Your task to perform on an android device: turn off location history Image 0: 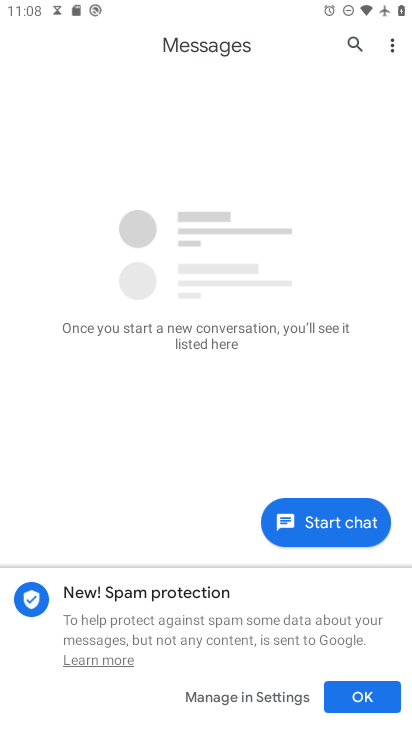
Step 0: press home button
Your task to perform on an android device: turn off location history Image 1: 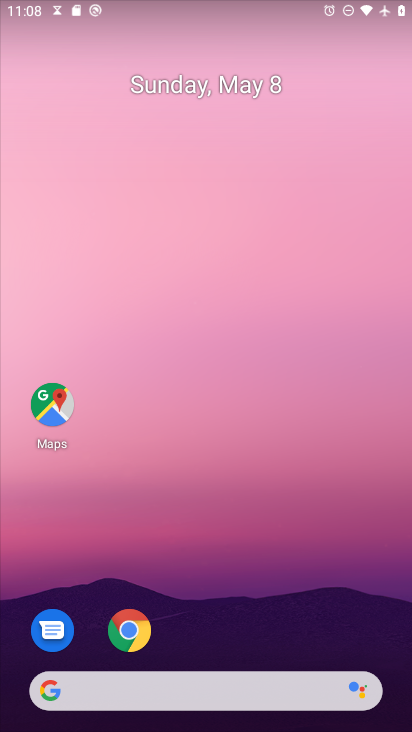
Step 1: drag from (183, 695) to (278, 83)
Your task to perform on an android device: turn off location history Image 2: 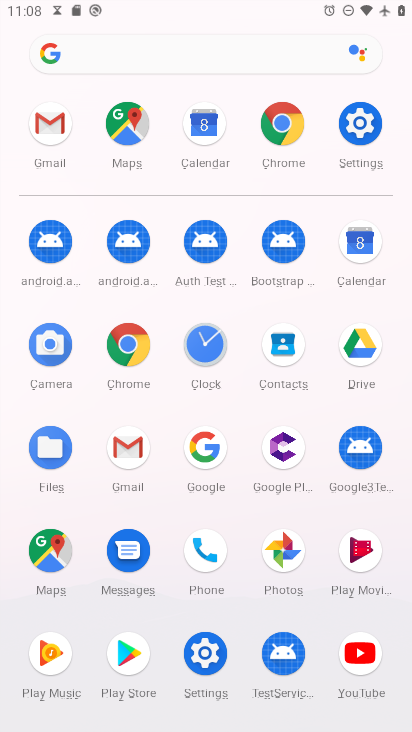
Step 2: click (119, 135)
Your task to perform on an android device: turn off location history Image 3: 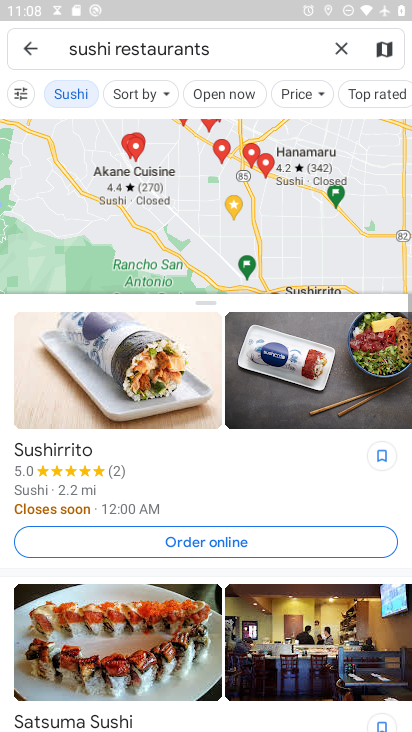
Step 3: click (27, 49)
Your task to perform on an android device: turn off location history Image 4: 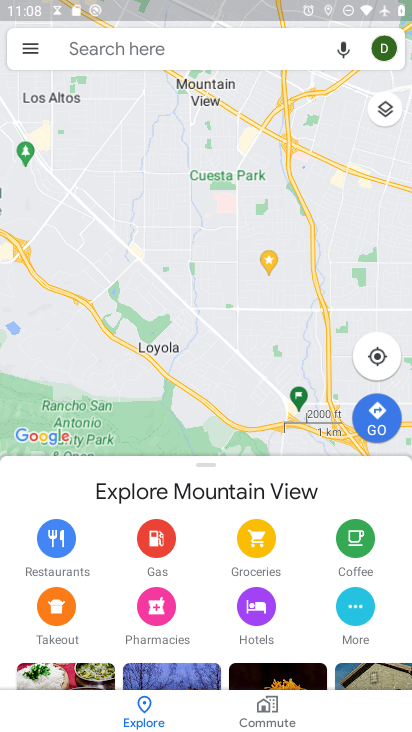
Step 4: click (27, 49)
Your task to perform on an android device: turn off location history Image 5: 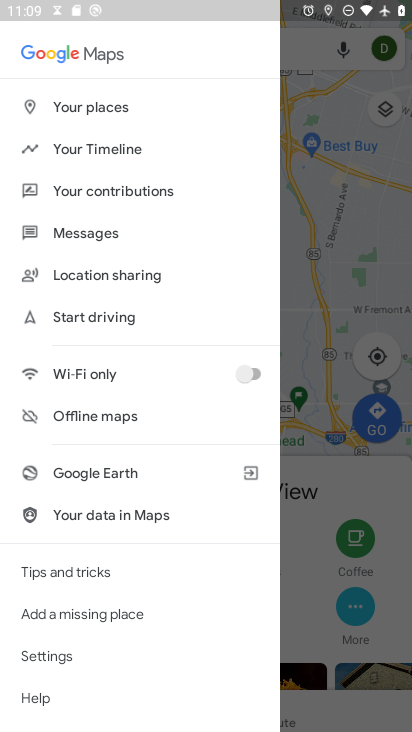
Step 5: click (112, 155)
Your task to perform on an android device: turn off location history Image 6: 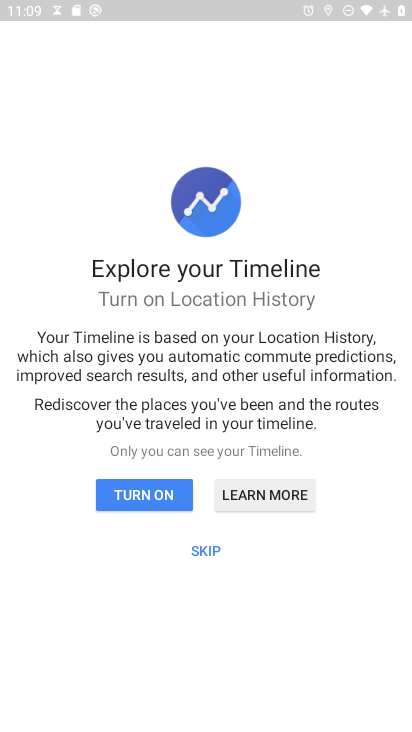
Step 6: click (215, 545)
Your task to perform on an android device: turn off location history Image 7: 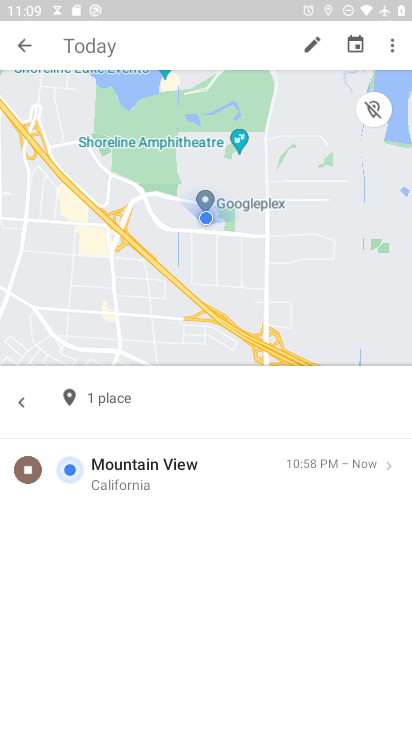
Step 7: click (390, 43)
Your task to perform on an android device: turn off location history Image 8: 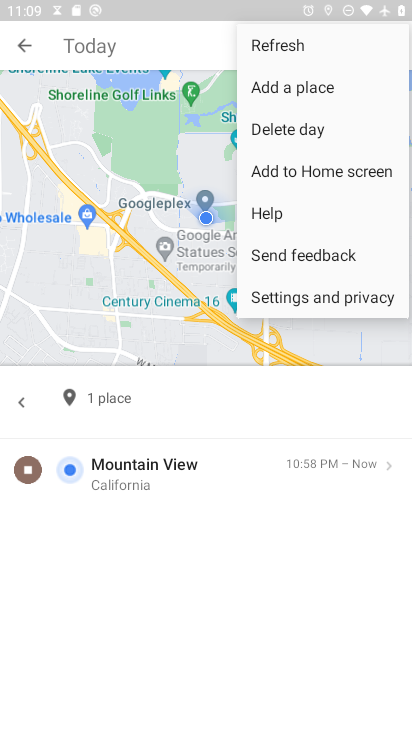
Step 8: click (311, 303)
Your task to perform on an android device: turn off location history Image 9: 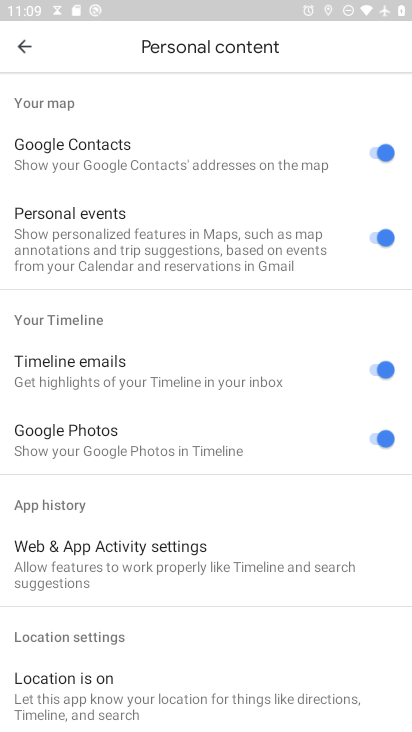
Step 9: drag from (198, 647) to (264, 246)
Your task to perform on an android device: turn off location history Image 10: 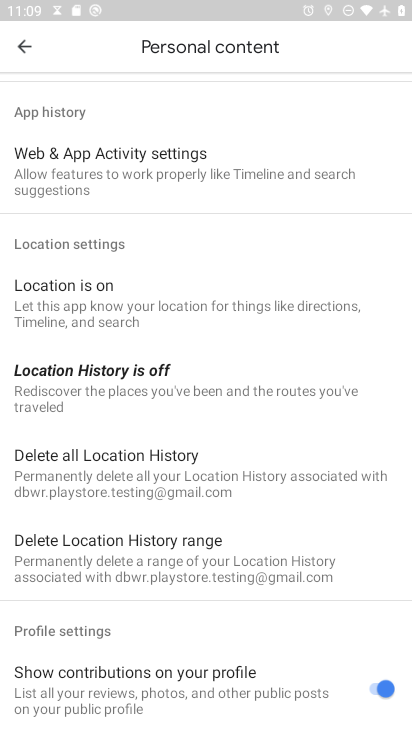
Step 10: click (124, 385)
Your task to perform on an android device: turn off location history Image 11: 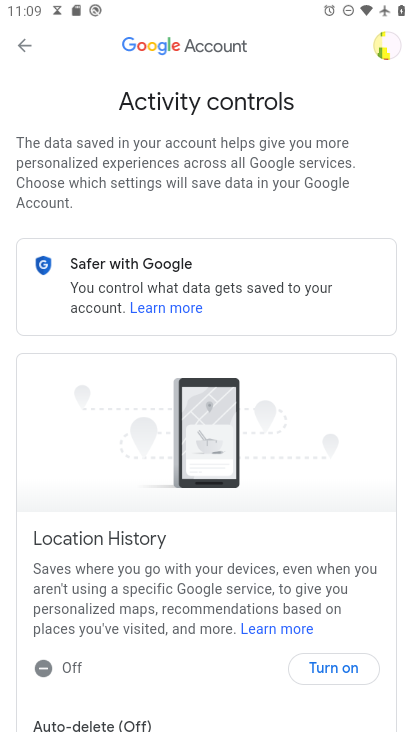
Step 11: task complete